Your task to perform on an android device: toggle notification dots Image 0: 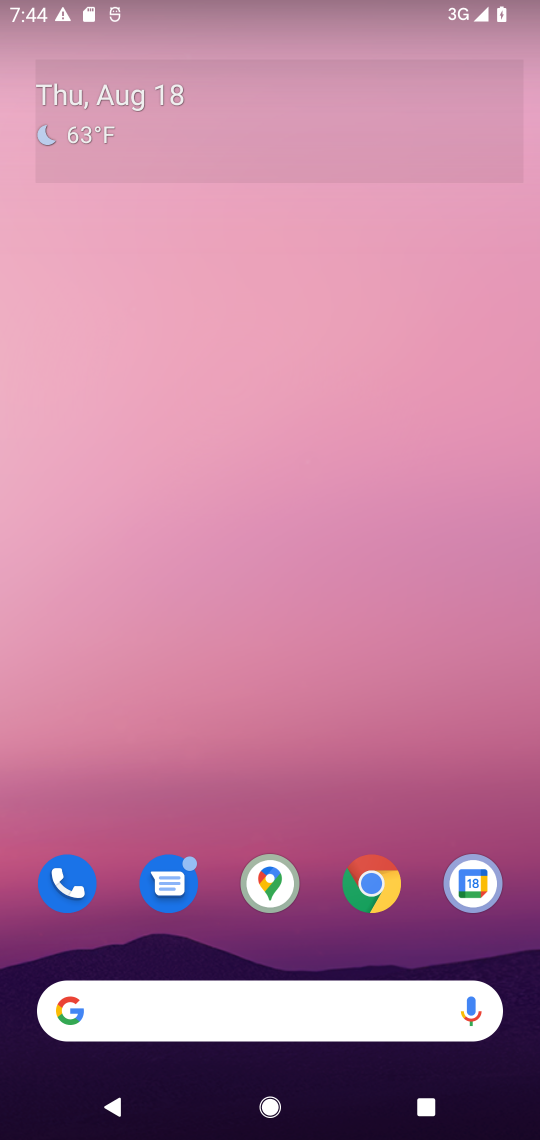
Step 0: drag from (468, 364) to (475, 12)
Your task to perform on an android device: toggle notification dots Image 1: 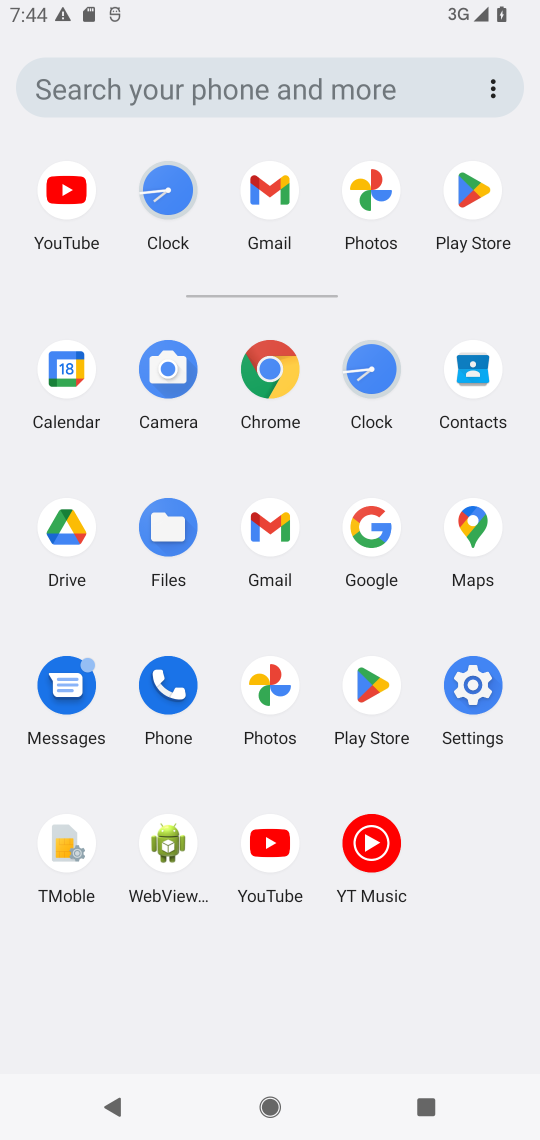
Step 1: click (465, 701)
Your task to perform on an android device: toggle notification dots Image 2: 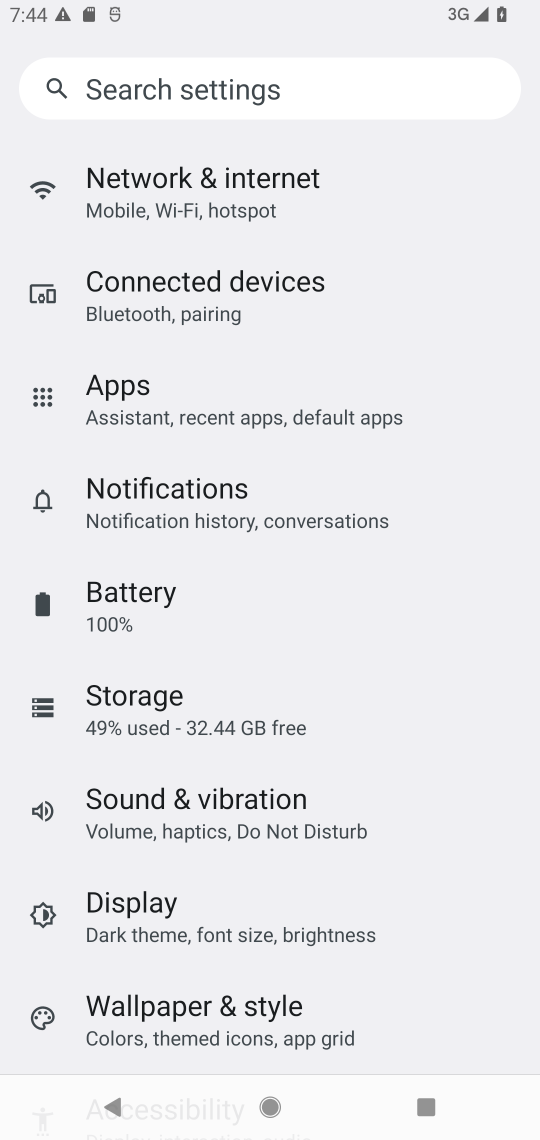
Step 2: click (250, 487)
Your task to perform on an android device: toggle notification dots Image 3: 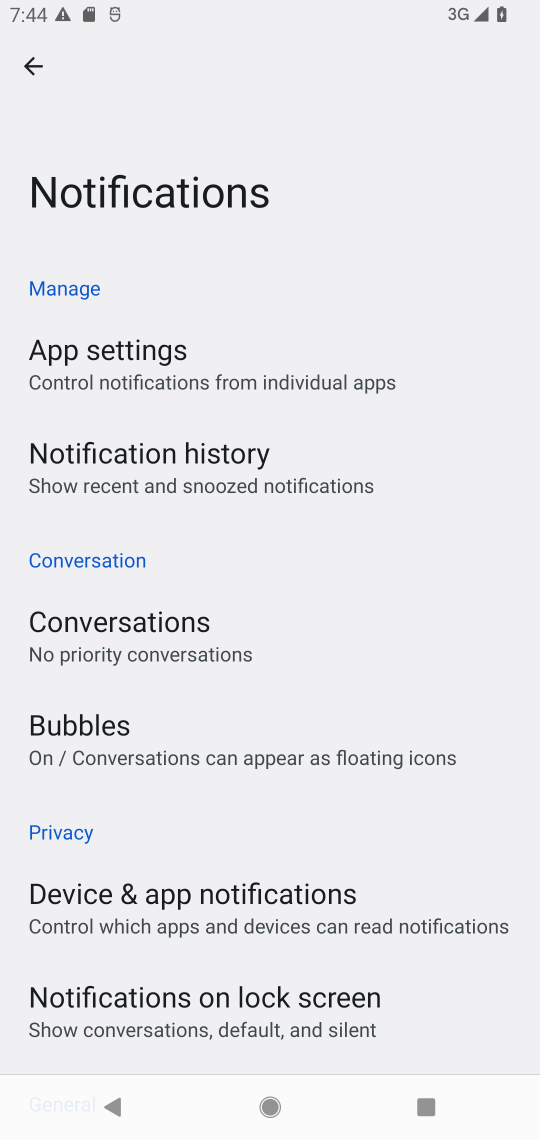
Step 3: task complete